Your task to perform on an android device: turn off notifications settings in the gmail app Image 0: 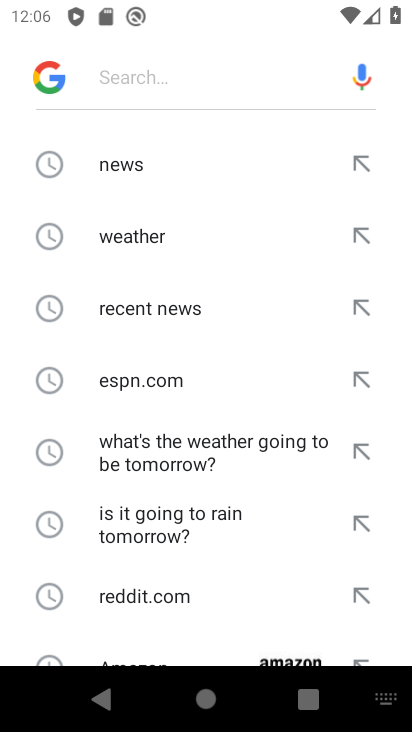
Step 0: press home button
Your task to perform on an android device: turn off notifications settings in the gmail app Image 1: 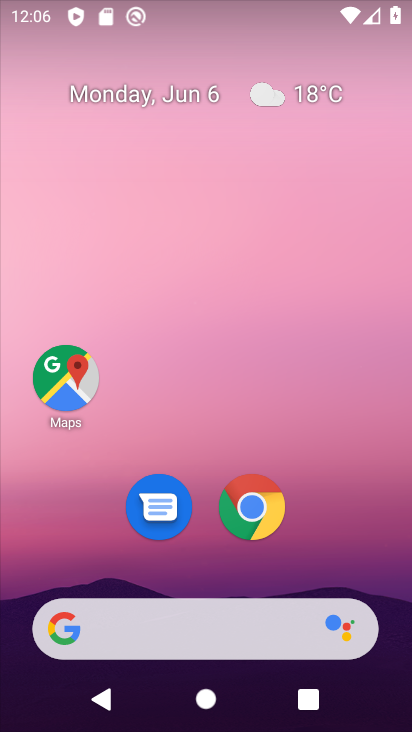
Step 1: drag from (210, 559) to (219, 184)
Your task to perform on an android device: turn off notifications settings in the gmail app Image 2: 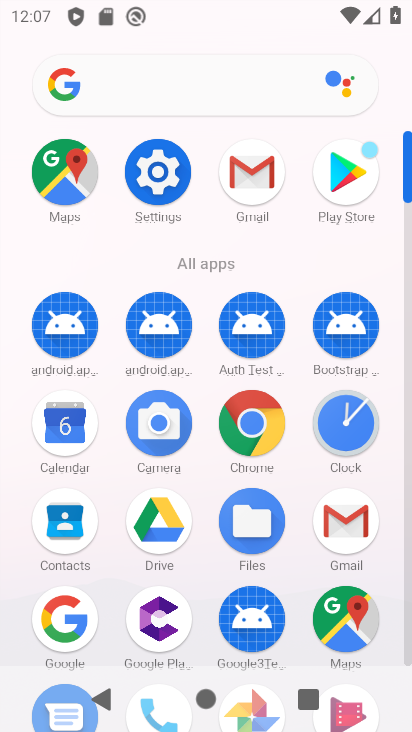
Step 2: click (346, 496)
Your task to perform on an android device: turn off notifications settings in the gmail app Image 3: 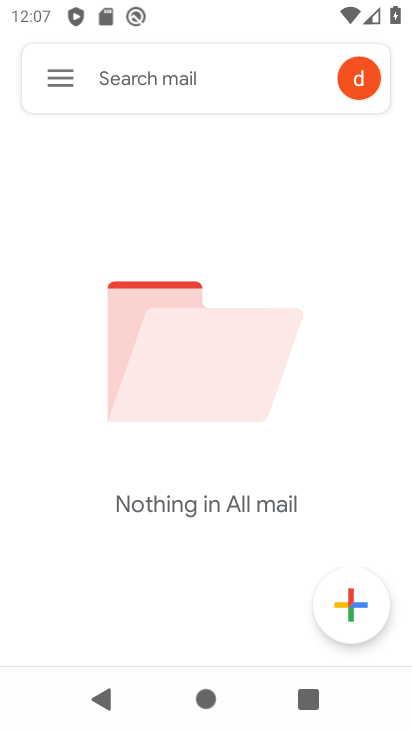
Step 3: click (76, 78)
Your task to perform on an android device: turn off notifications settings in the gmail app Image 4: 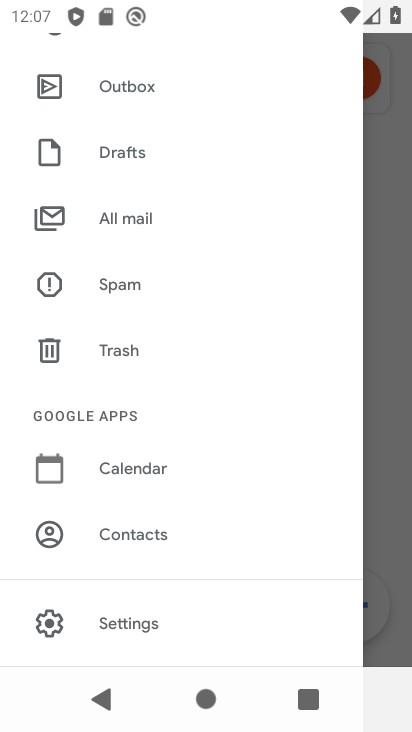
Step 4: click (146, 623)
Your task to perform on an android device: turn off notifications settings in the gmail app Image 5: 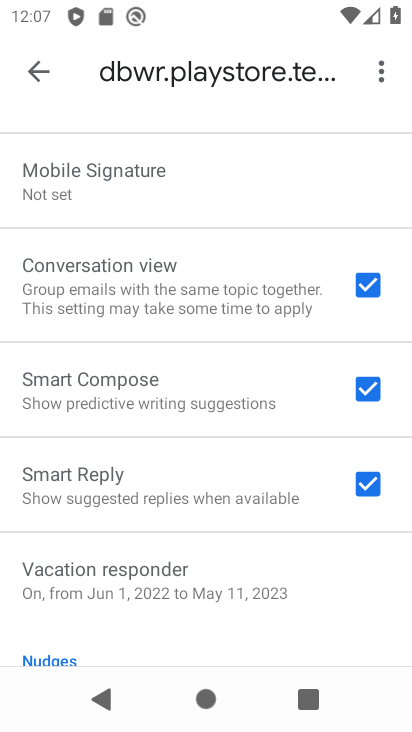
Step 5: click (27, 77)
Your task to perform on an android device: turn off notifications settings in the gmail app Image 6: 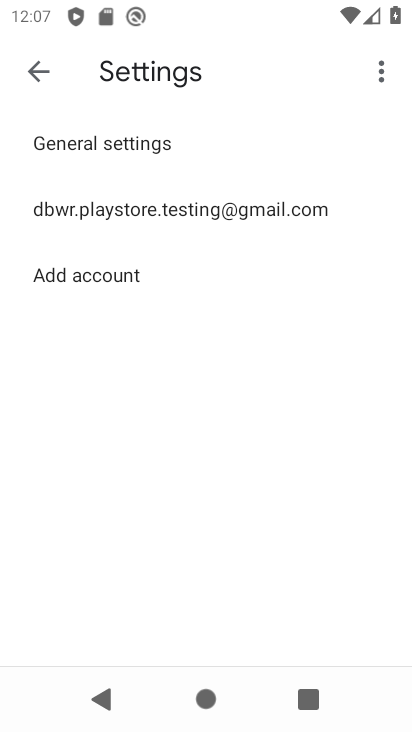
Step 6: click (140, 152)
Your task to perform on an android device: turn off notifications settings in the gmail app Image 7: 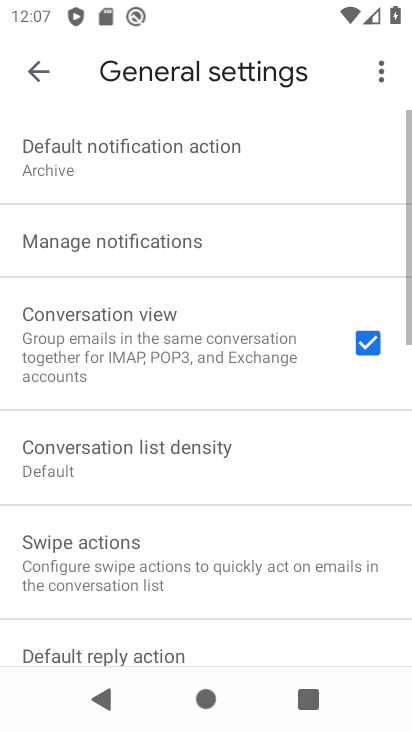
Step 7: click (177, 251)
Your task to perform on an android device: turn off notifications settings in the gmail app Image 8: 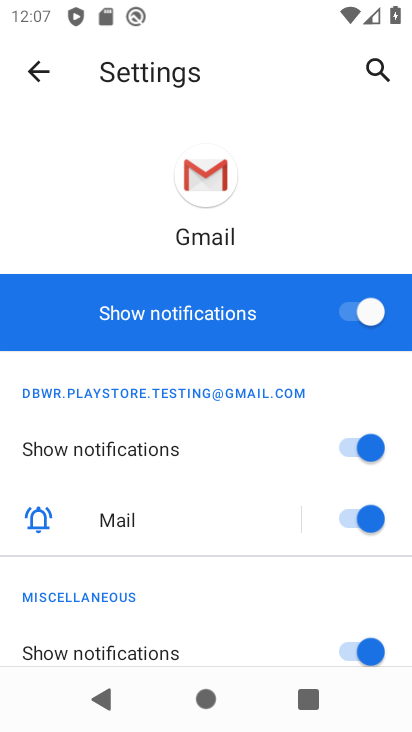
Step 8: click (329, 312)
Your task to perform on an android device: turn off notifications settings in the gmail app Image 9: 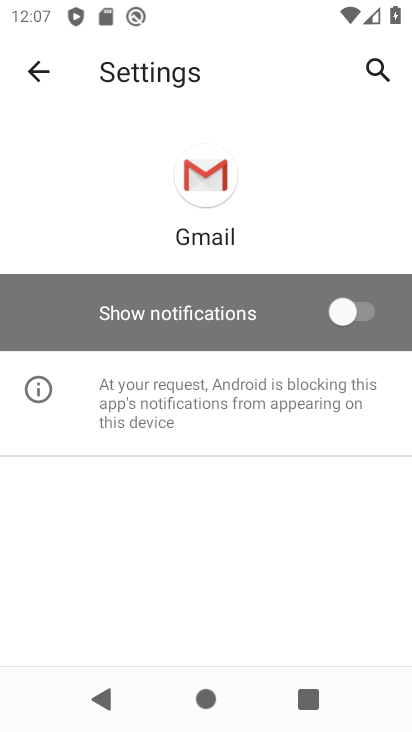
Step 9: task complete